Your task to perform on an android device: Open Yahoo.com Image 0: 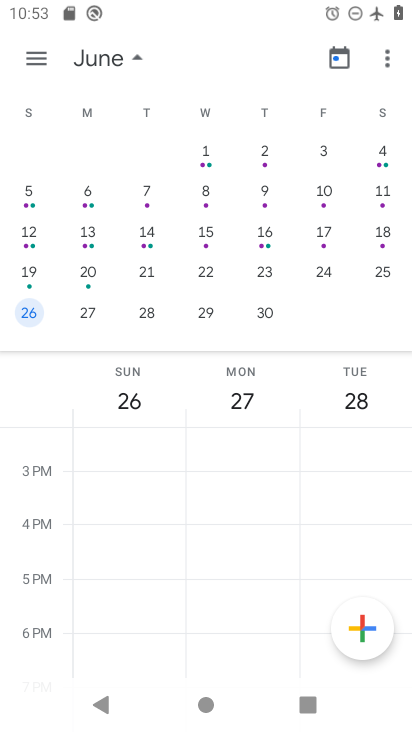
Step 0: press home button
Your task to perform on an android device: Open Yahoo.com Image 1: 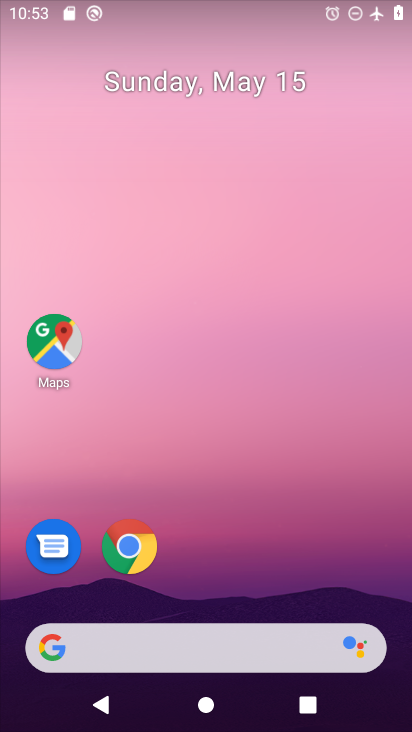
Step 1: click (125, 551)
Your task to perform on an android device: Open Yahoo.com Image 2: 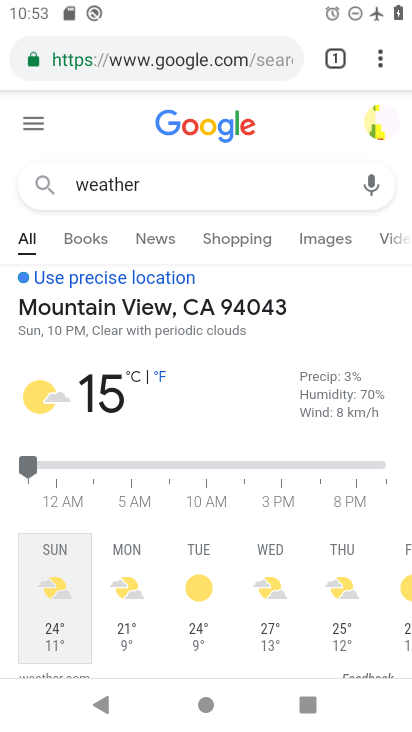
Step 2: click (236, 58)
Your task to perform on an android device: Open Yahoo.com Image 3: 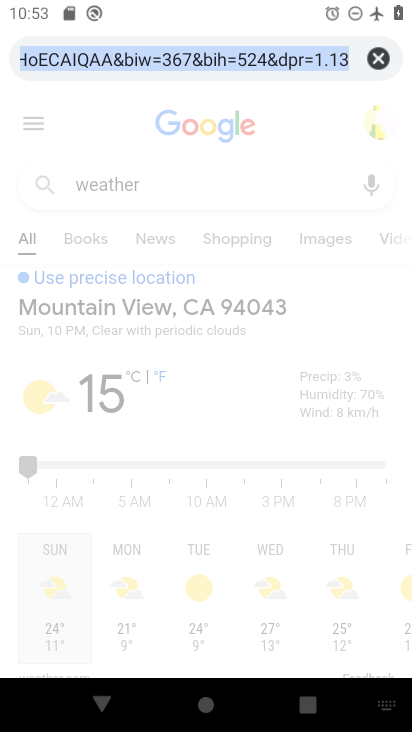
Step 3: type "yahoo.com"
Your task to perform on an android device: Open Yahoo.com Image 4: 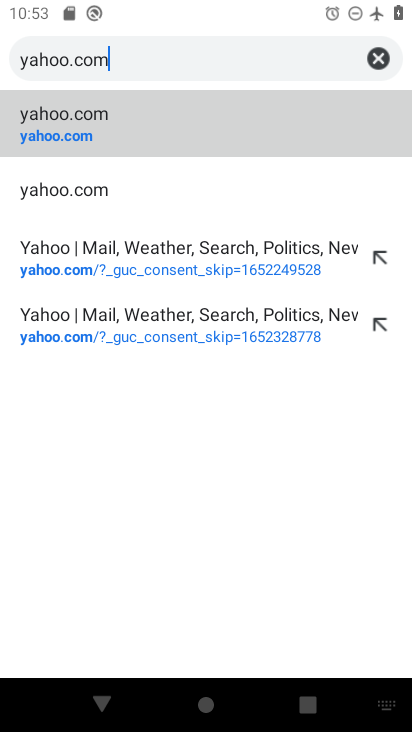
Step 4: click (88, 137)
Your task to perform on an android device: Open Yahoo.com Image 5: 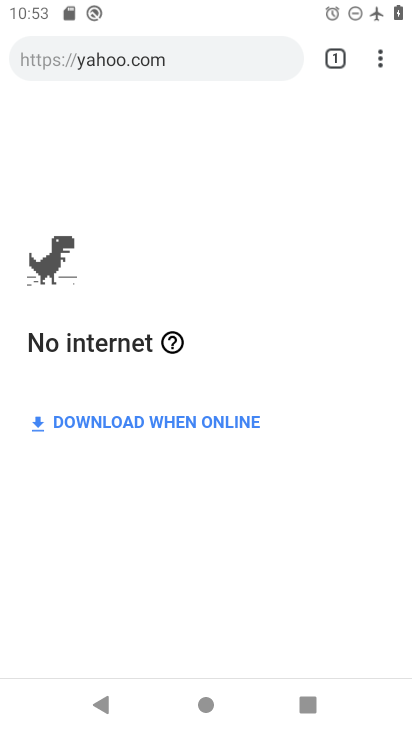
Step 5: task complete